Your task to perform on an android device: open app "Life360: Find Family & Friends" (install if not already installed) Image 0: 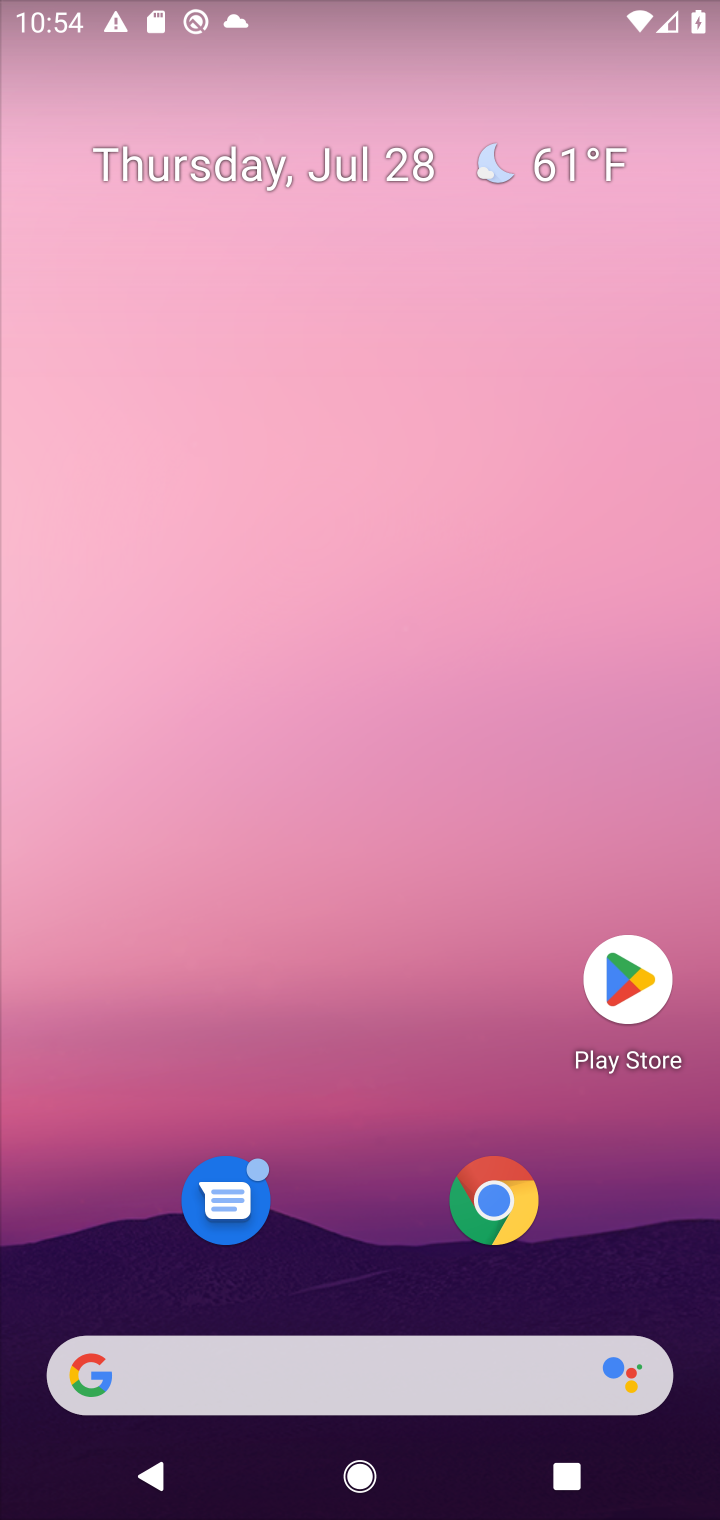
Step 0: press home button
Your task to perform on an android device: open app "Life360: Find Family & Friends" (install if not already installed) Image 1: 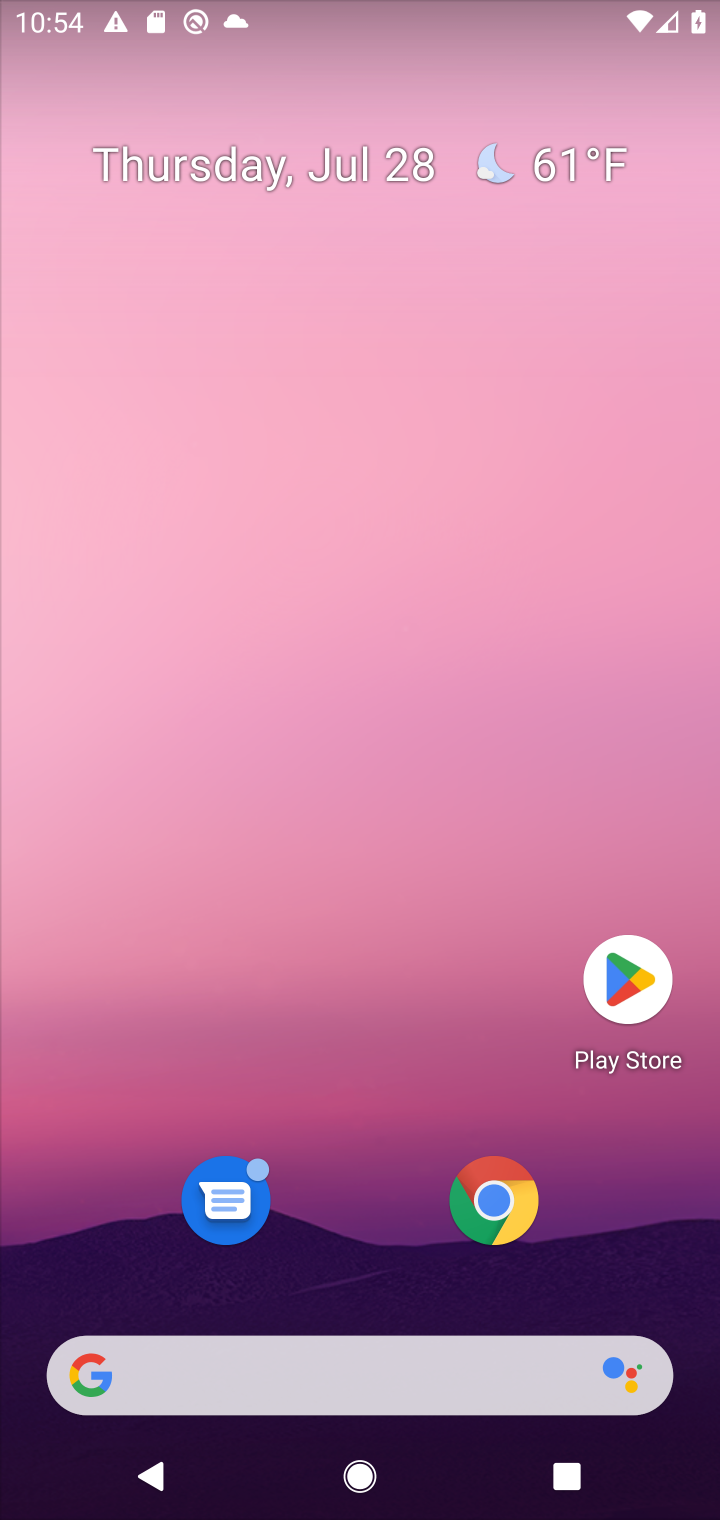
Step 1: click (637, 977)
Your task to perform on an android device: open app "Life360: Find Family & Friends" (install if not already installed) Image 2: 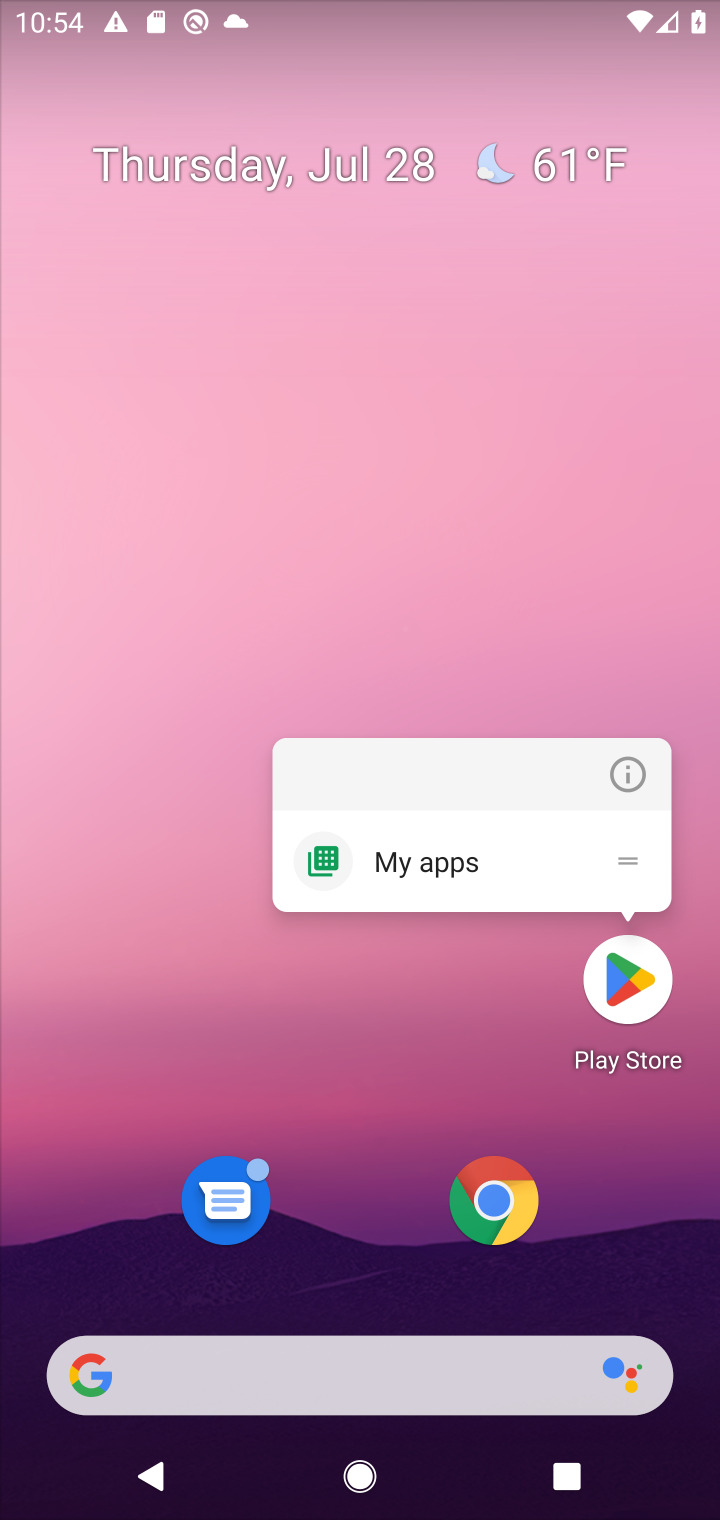
Step 2: click (637, 988)
Your task to perform on an android device: open app "Life360: Find Family & Friends" (install if not already installed) Image 3: 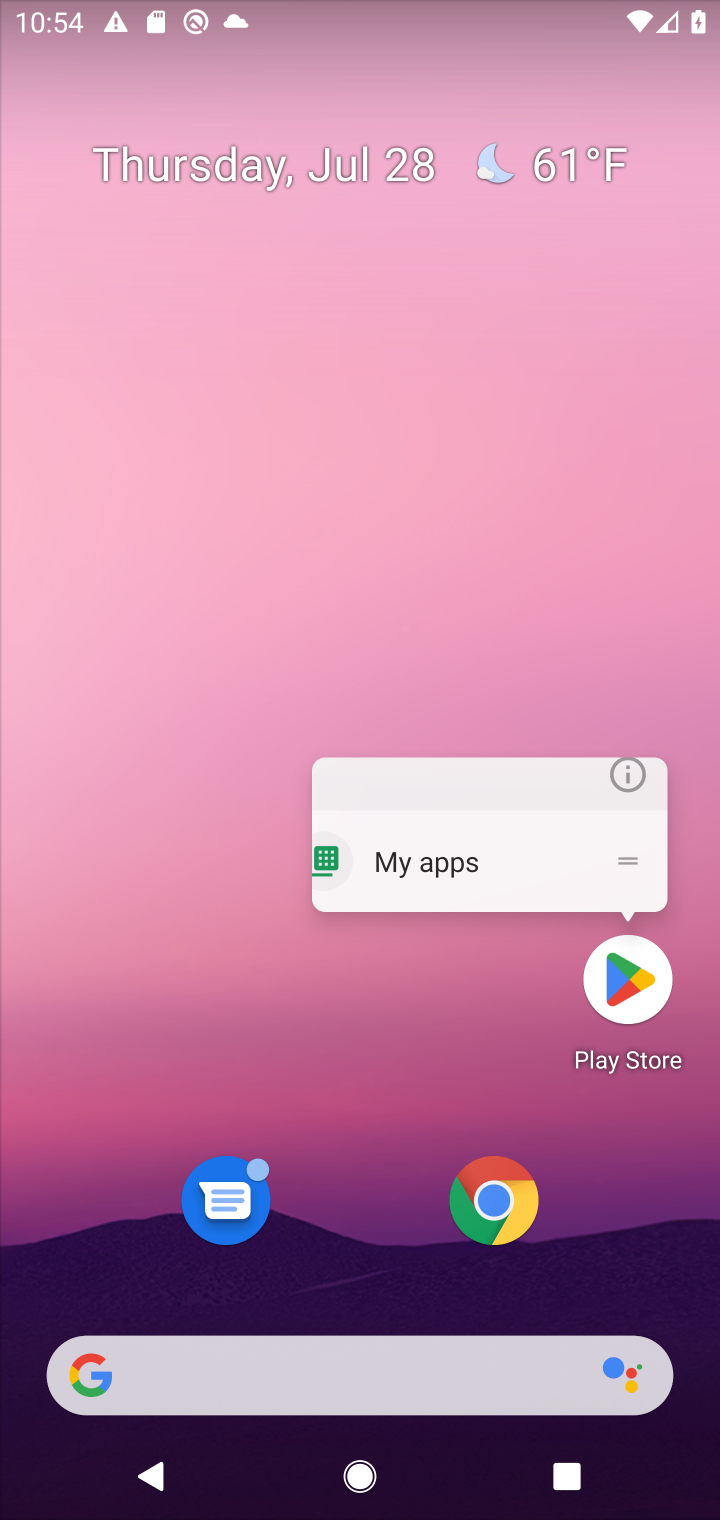
Step 3: click (637, 988)
Your task to perform on an android device: open app "Life360: Find Family & Friends" (install if not already installed) Image 4: 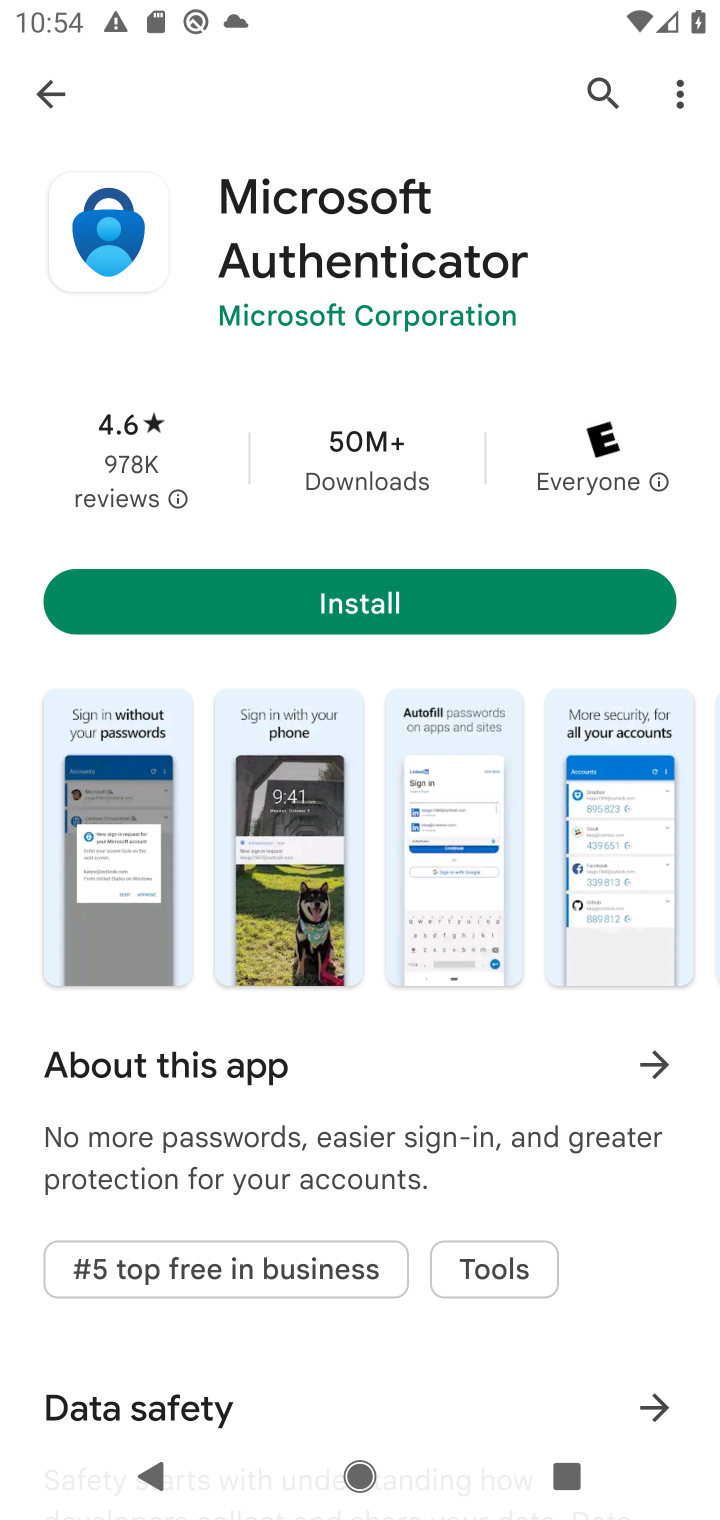
Step 4: click (599, 85)
Your task to perform on an android device: open app "Life360: Find Family & Friends" (install if not already installed) Image 5: 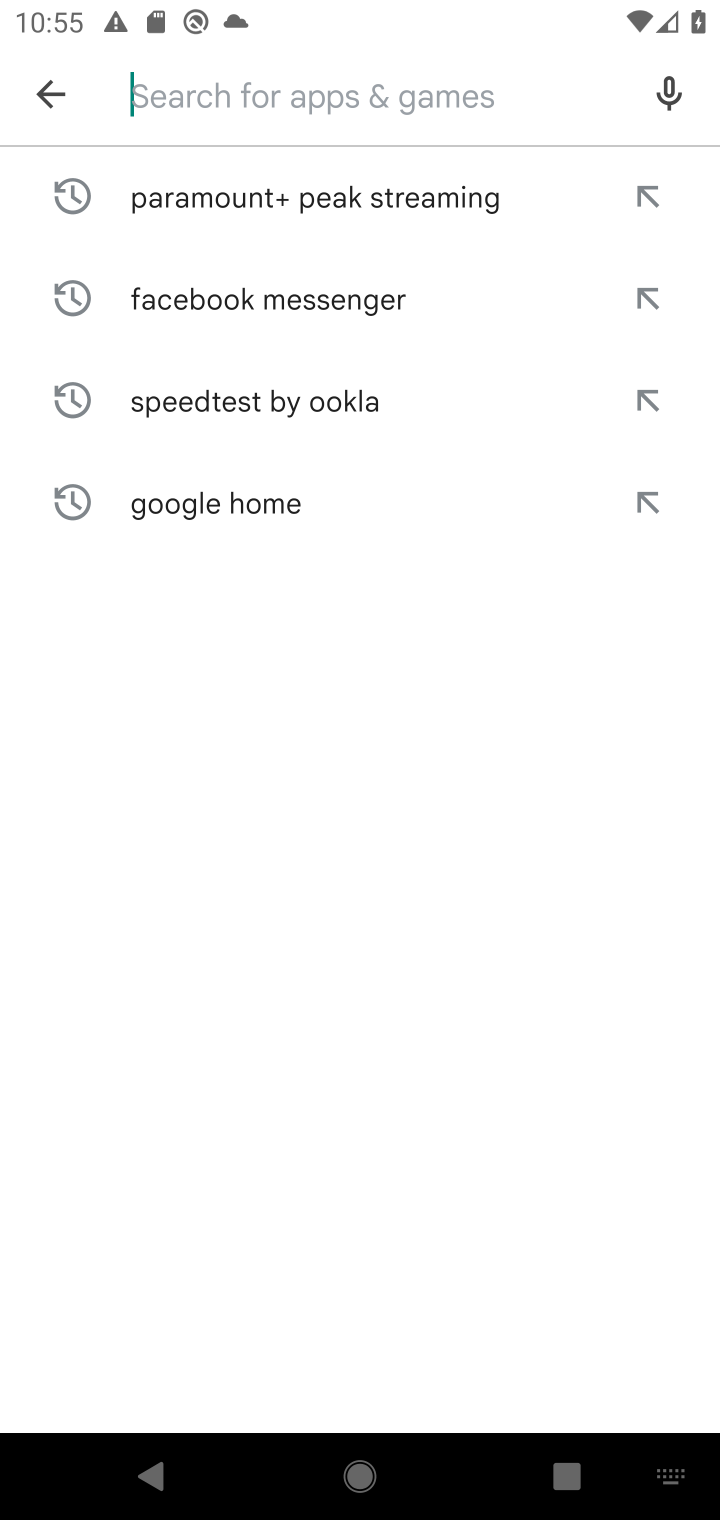
Step 5: type "Life360: Find Family & Friends"
Your task to perform on an android device: open app "Life360: Find Family & Friends" (install if not already installed) Image 6: 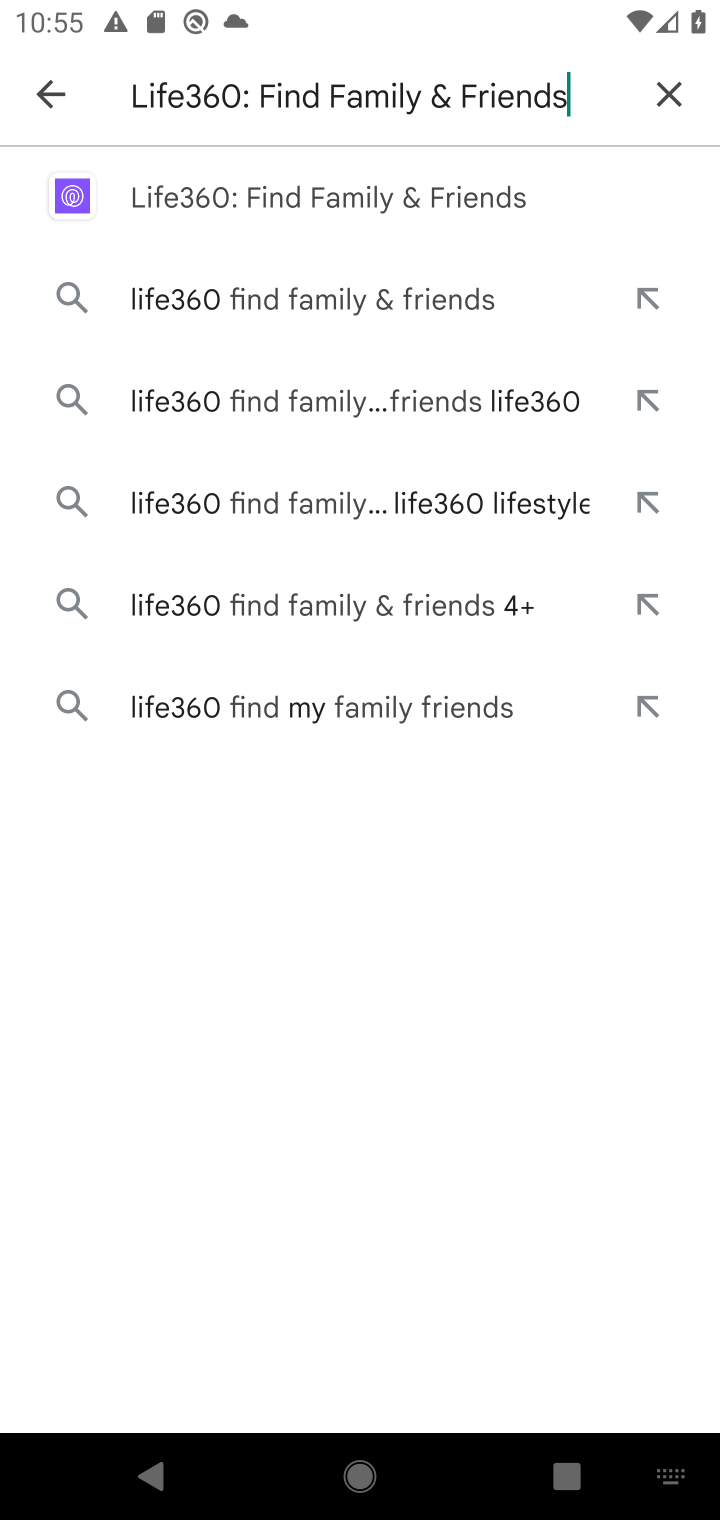
Step 6: click (349, 191)
Your task to perform on an android device: open app "Life360: Find Family & Friends" (install if not already installed) Image 7: 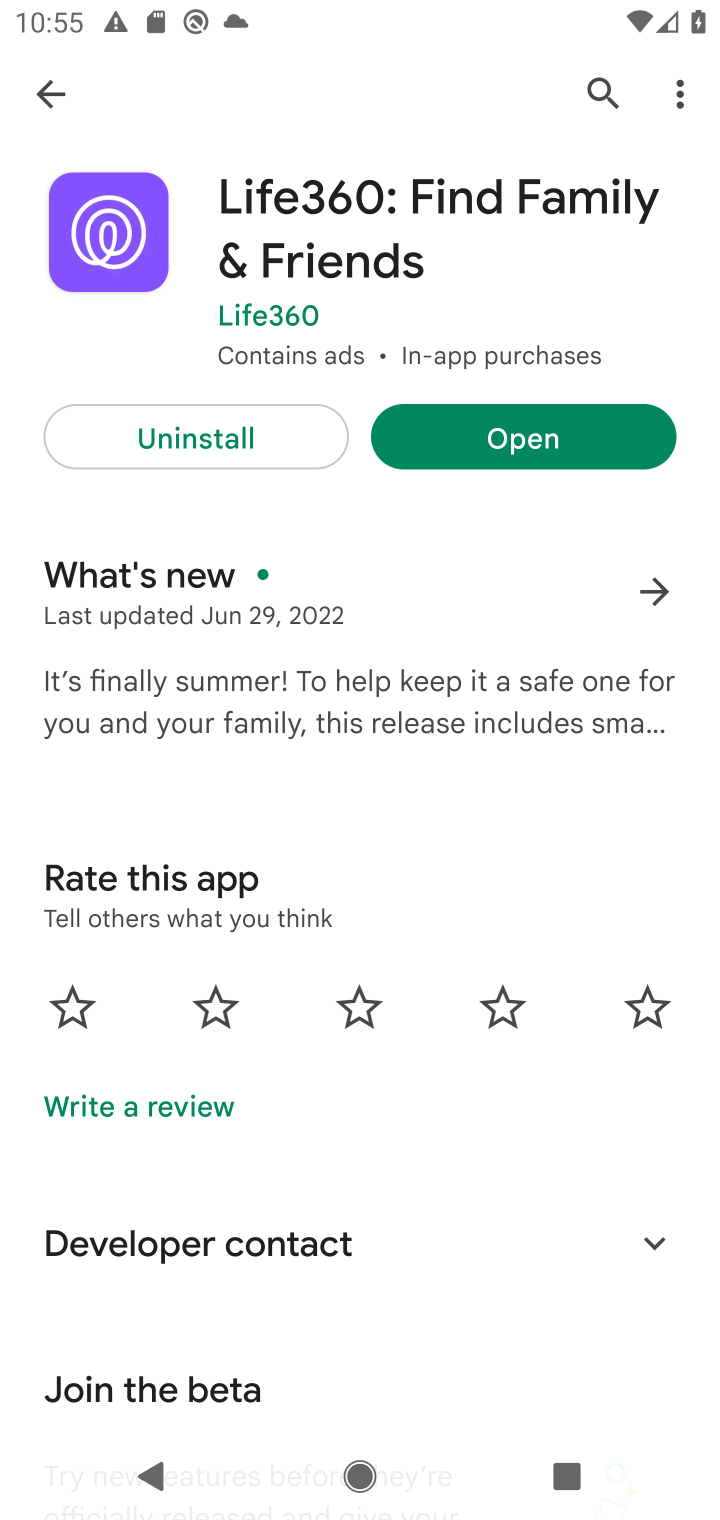
Step 7: click (525, 443)
Your task to perform on an android device: open app "Life360: Find Family & Friends" (install if not already installed) Image 8: 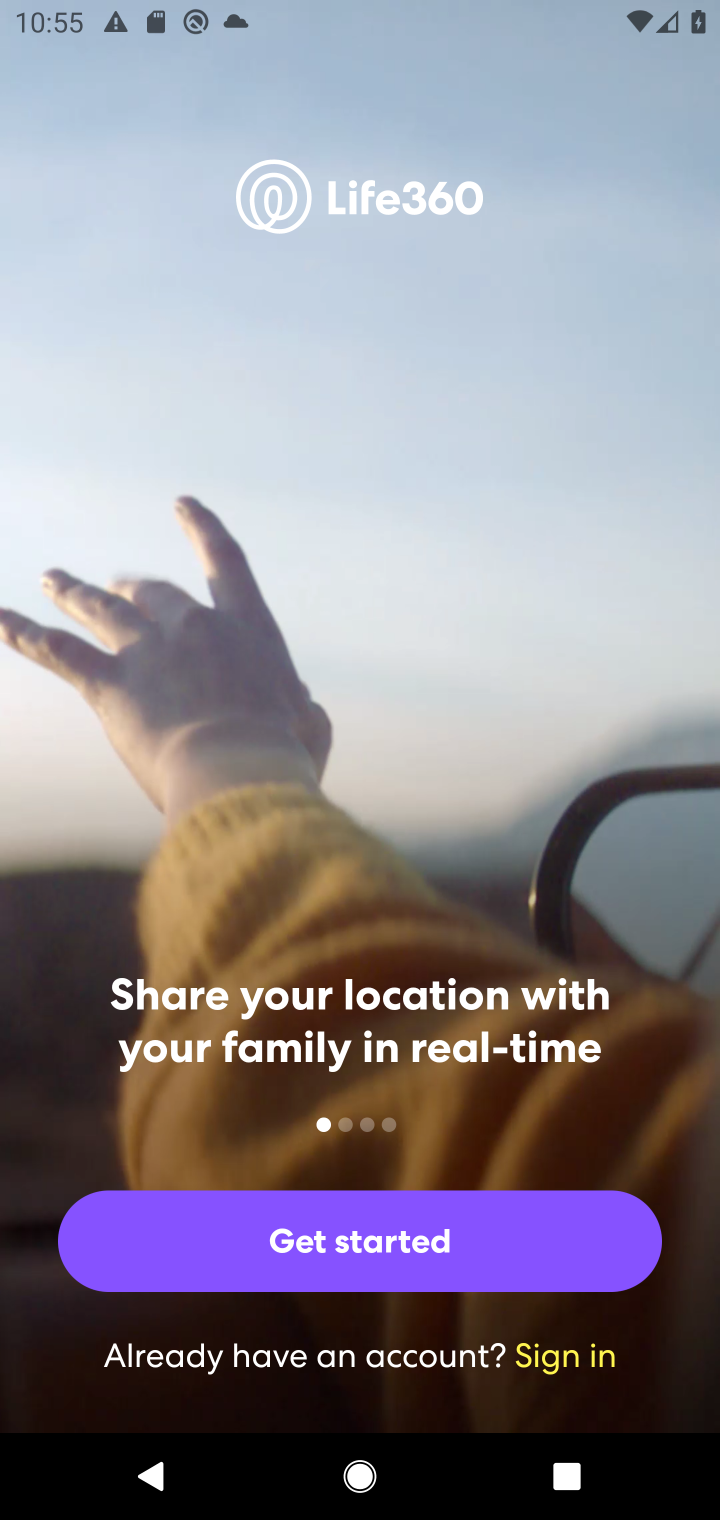
Step 8: task complete